Your task to perform on an android device: empty trash in google photos Image 0: 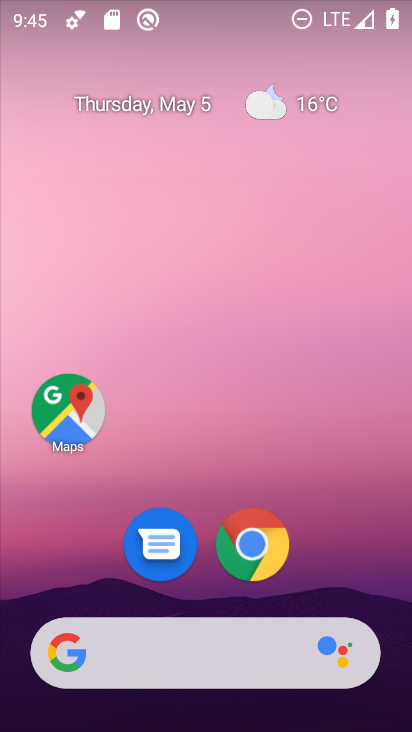
Step 0: drag from (394, 657) to (287, 55)
Your task to perform on an android device: empty trash in google photos Image 1: 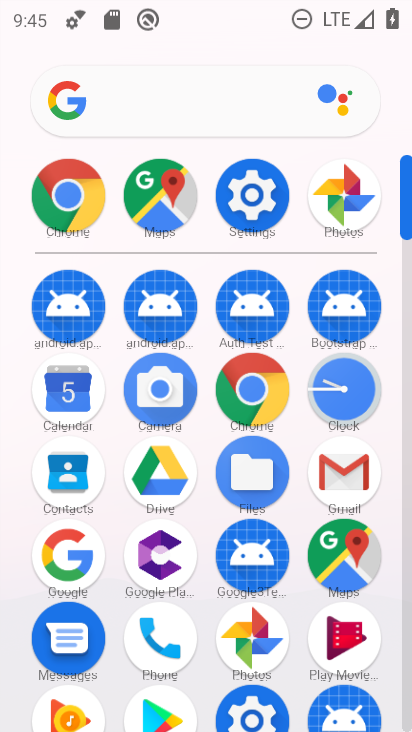
Step 1: click (259, 623)
Your task to perform on an android device: empty trash in google photos Image 2: 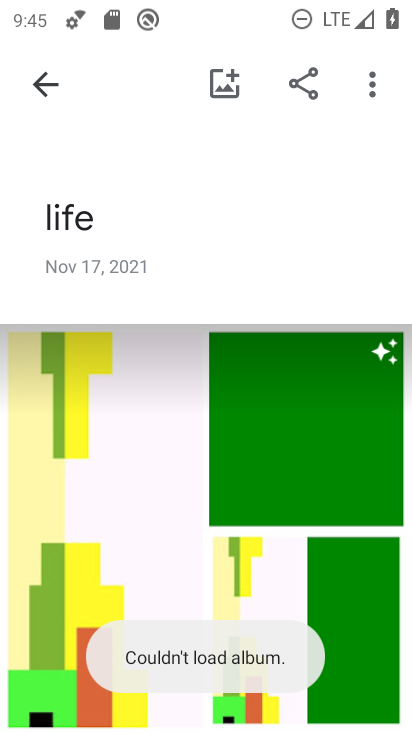
Step 2: click (48, 101)
Your task to perform on an android device: empty trash in google photos Image 3: 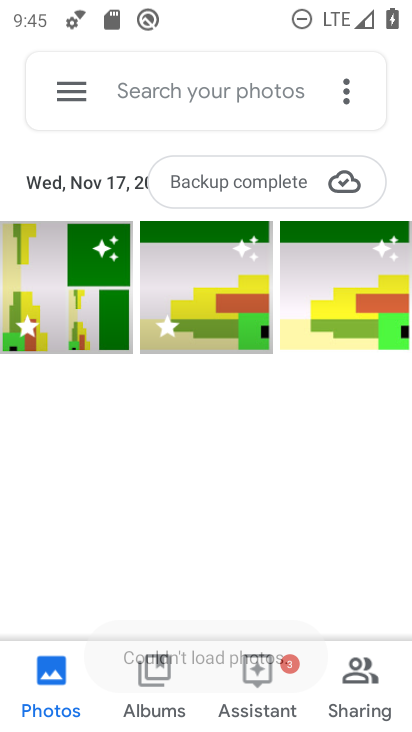
Step 3: click (81, 77)
Your task to perform on an android device: empty trash in google photos Image 4: 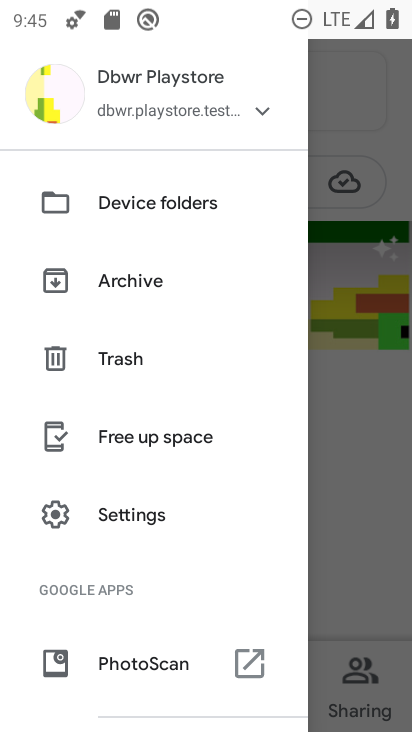
Step 4: click (127, 358)
Your task to perform on an android device: empty trash in google photos Image 5: 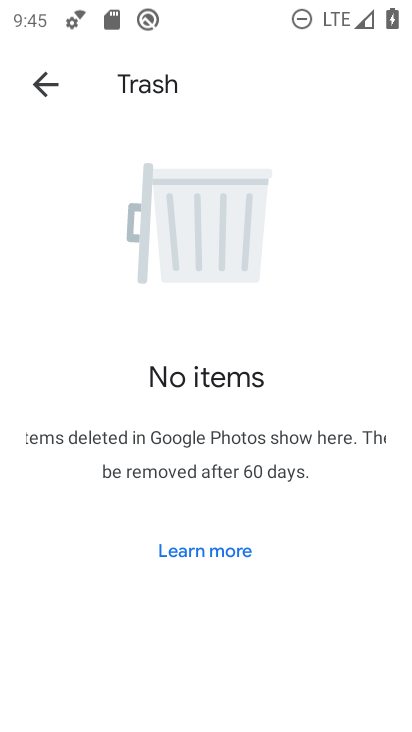
Step 5: task complete